Your task to perform on an android device: What's the time in New York? Image 0: 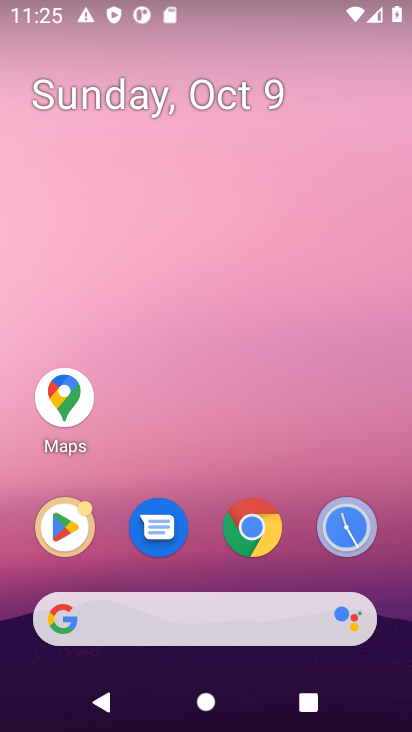
Step 0: click (248, 544)
Your task to perform on an android device: What's the time in New York? Image 1: 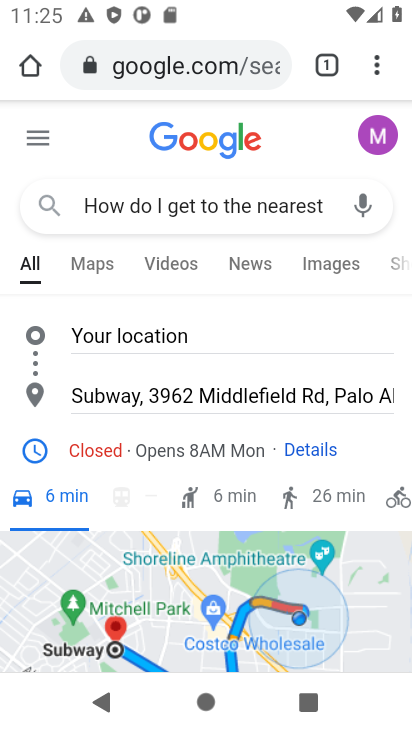
Step 1: click (216, 69)
Your task to perform on an android device: What's the time in New York? Image 2: 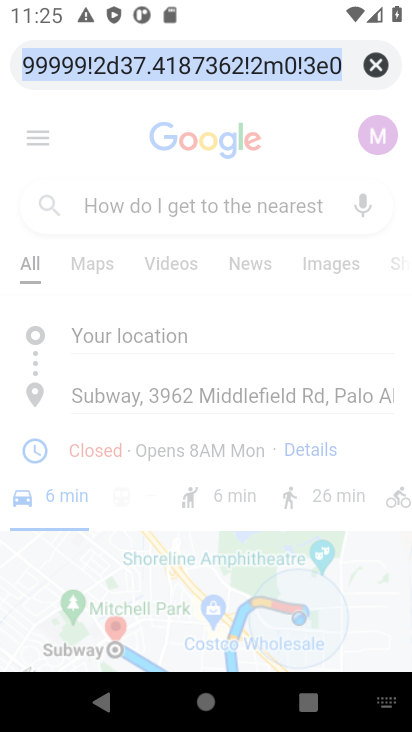
Step 2: type "time in new york "
Your task to perform on an android device: What's the time in New York? Image 3: 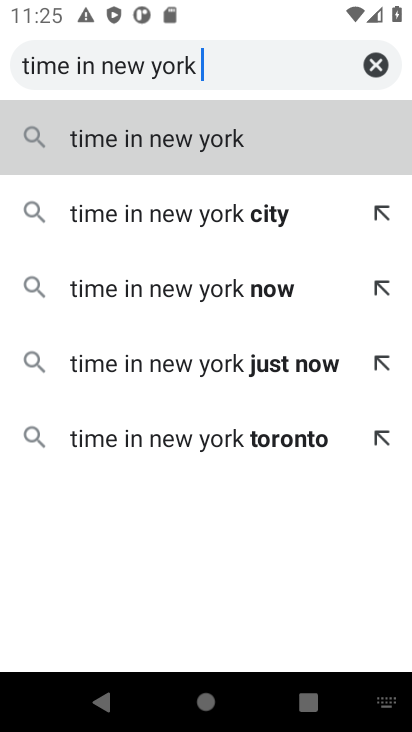
Step 3: click (160, 127)
Your task to perform on an android device: What's the time in New York? Image 4: 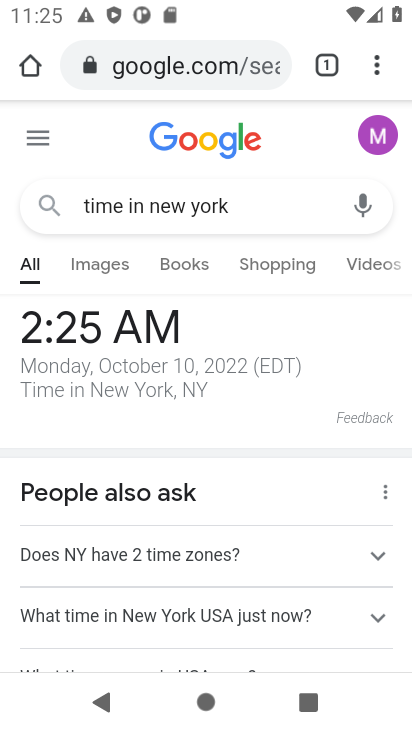
Step 4: task complete